Your task to perform on an android device: Open Android settings Image 0: 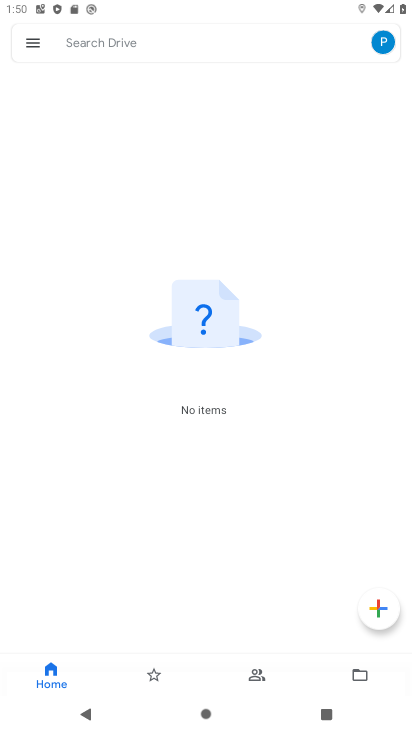
Step 0: press home button
Your task to perform on an android device: Open Android settings Image 1: 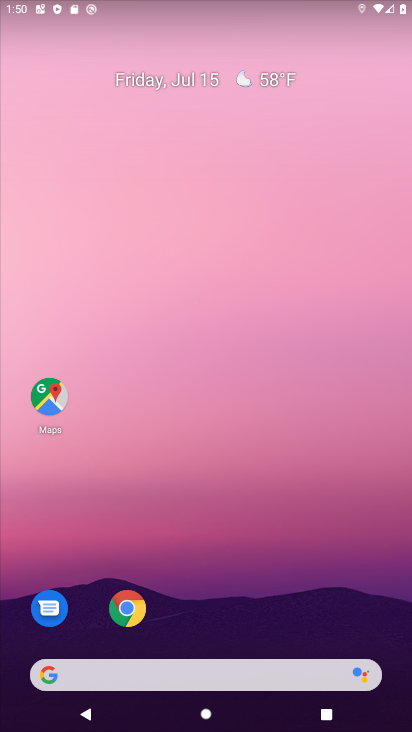
Step 1: click (118, 605)
Your task to perform on an android device: Open Android settings Image 2: 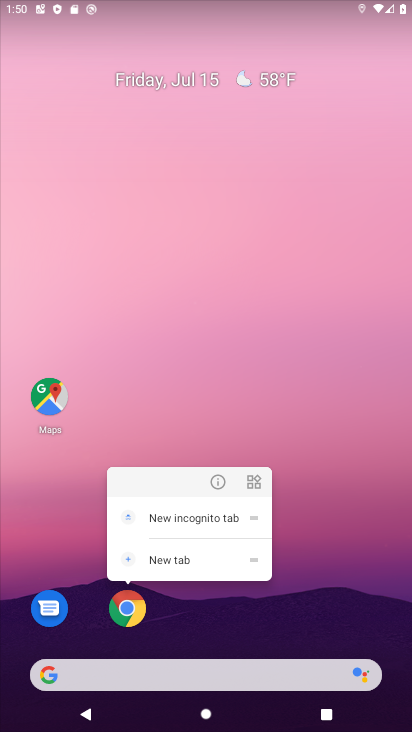
Step 2: click (218, 482)
Your task to perform on an android device: Open Android settings Image 3: 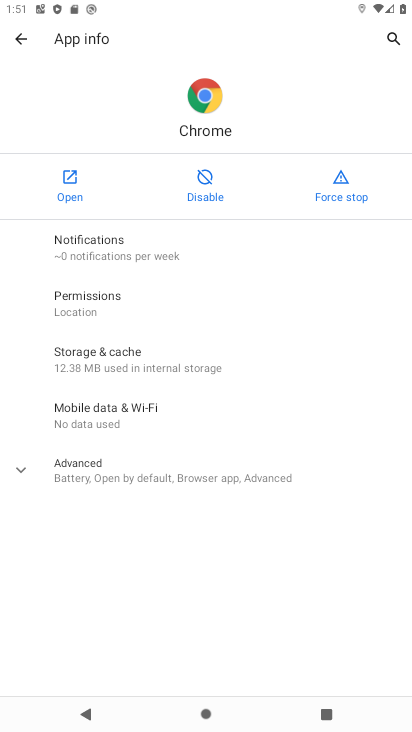
Step 3: click (114, 470)
Your task to perform on an android device: Open Android settings Image 4: 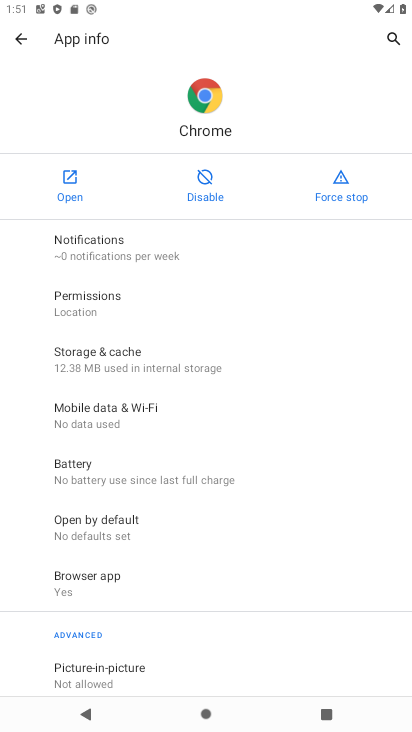
Step 4: drag from (188, 481) to (197, 285)
Your task to perform on an android device: Open Android settings Image 5: 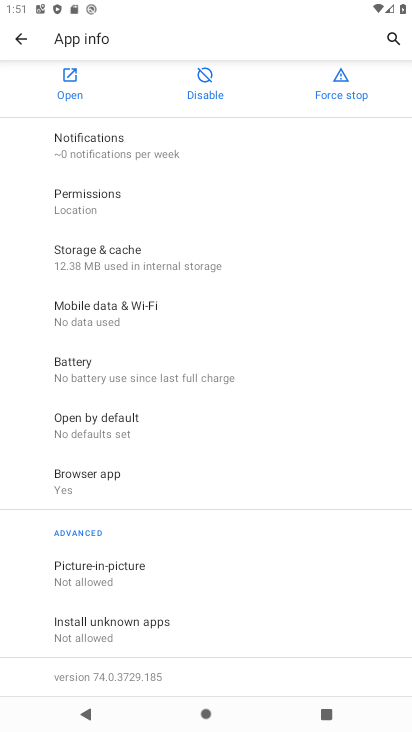
Step 5: press home button
Your task to perform on an android device: Open Android settings Image 6: 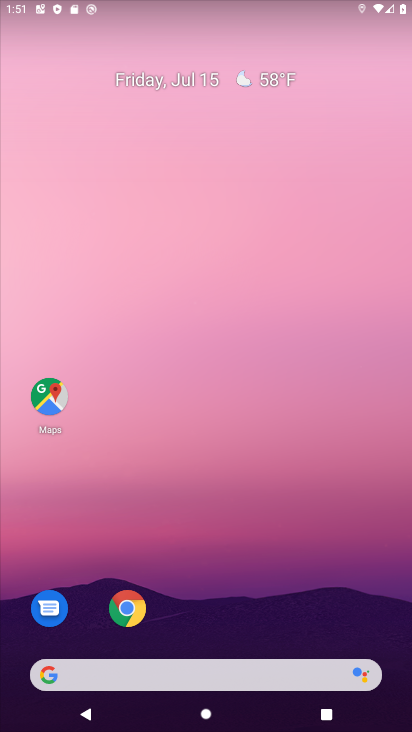
Step 6: drag from (302, 596) to (332, 137)
Your task to perform on an android device: Open Android settings Image 7: 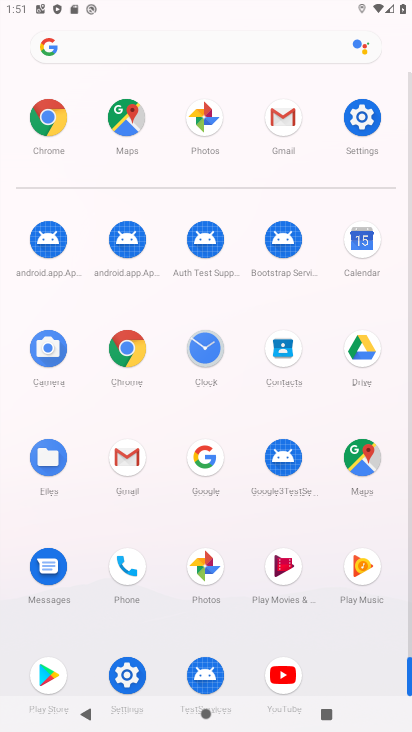
Step 7: click (131, 664)
Your task to perform on an android device: Open Android settings Image 8: 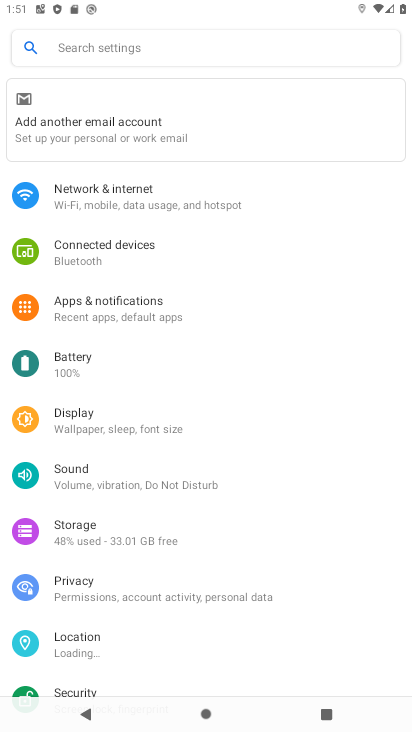
Step 8: drag from (170, 644) to (224, 151)
Your task to perform on an android device: Open Android settings Image 9: 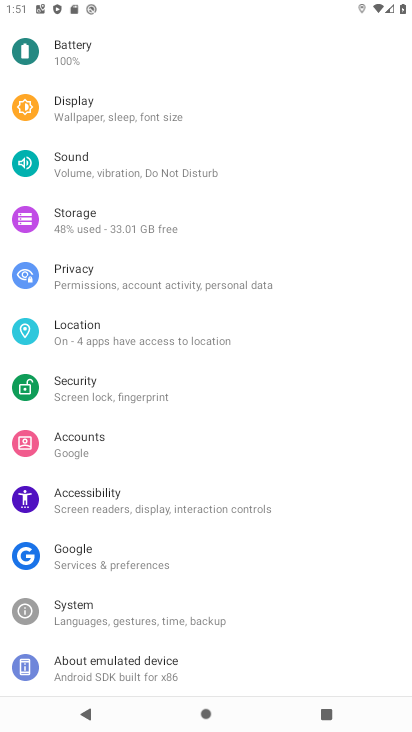
Step 9: click (91, 654)
Your task to perform on an android device: Open Android settings Image 10: 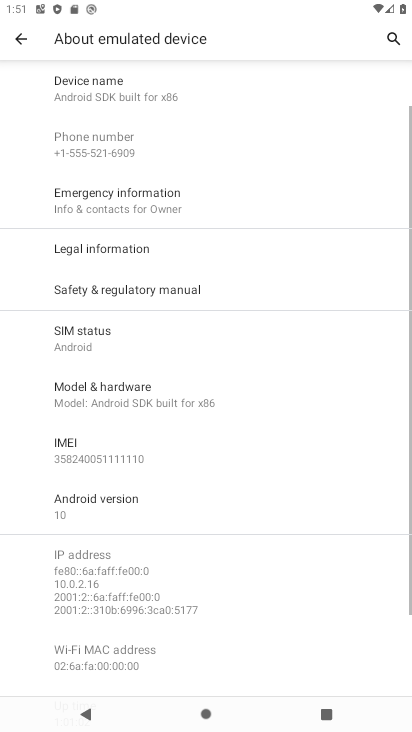
Step 10: click (76, 494)
Your task to perform on an android device: Open Android settings Image 11: 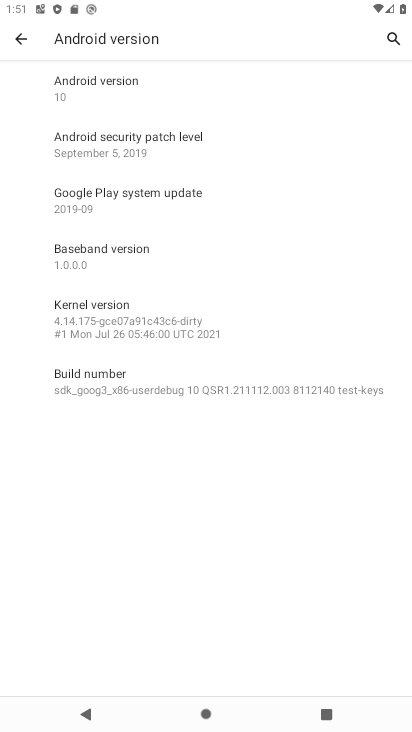
Step 11: task complete